Your task to perform on an android device: turn notification dots on Image 0: 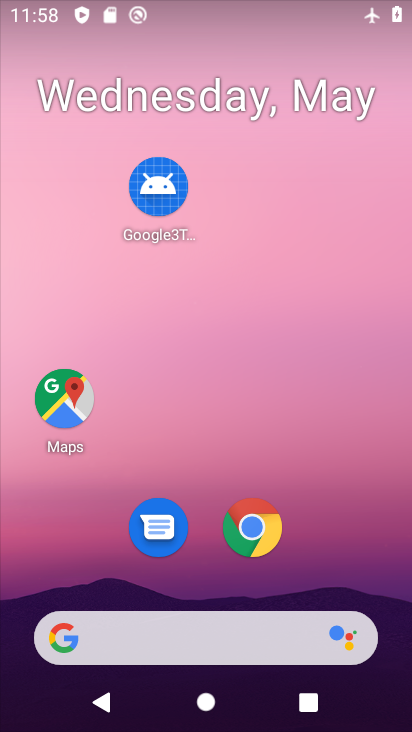
Step 0: drag from (202, 585) to (206, 32)
Your task to perform on an android device: turn notification dots on Image 1: 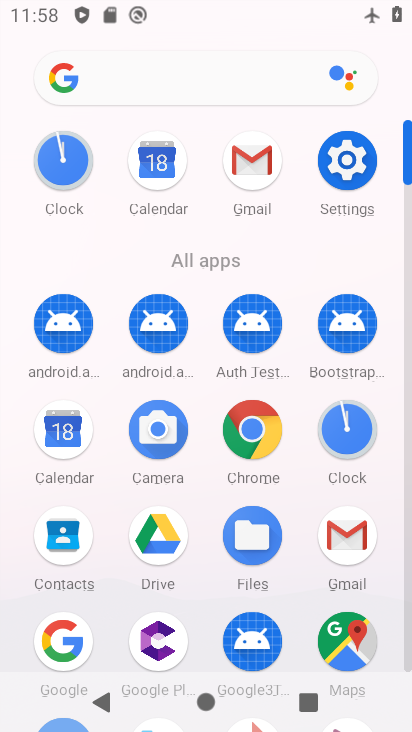
Step 1: click (352, 155)
Your task to perform on an android device: turn notification dots on Image 2: 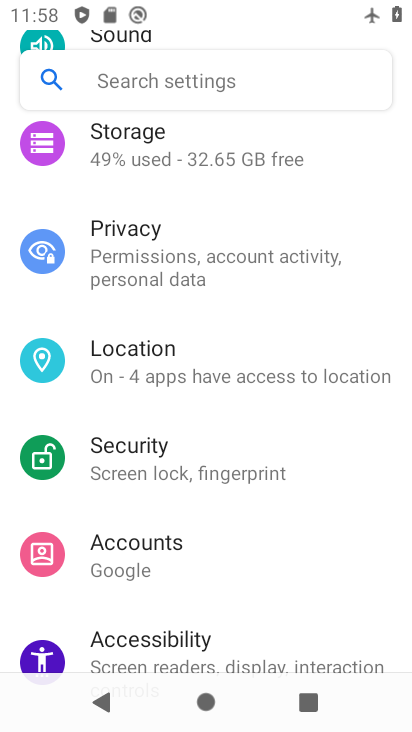
Step 2: drag from (177, 174) to (209, 729)
Your task to perform on an android device: turn notification dots on Image 3: 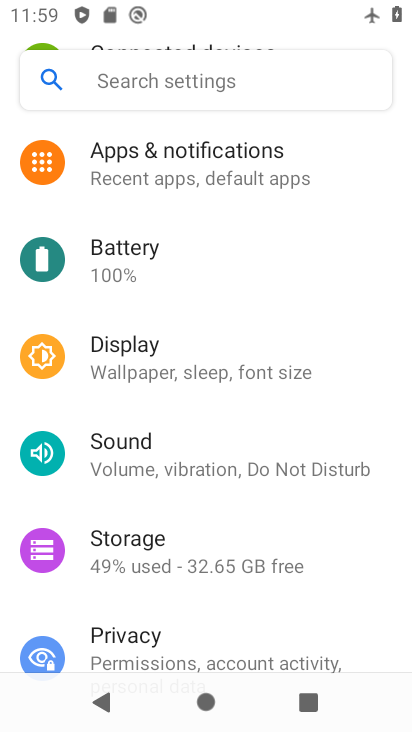
Step 3: click (154, 158)
Your task to perform on an android device: turn notification dots on Image 4: 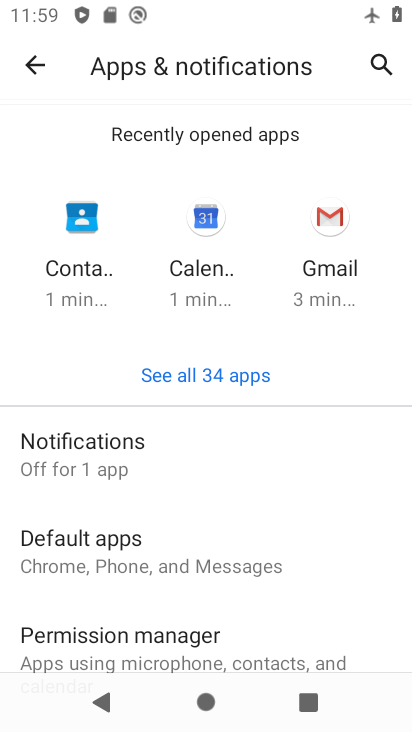
Step 4: click (150, 432)
Your task to perform on an android device: turn notification dots on Image 5: 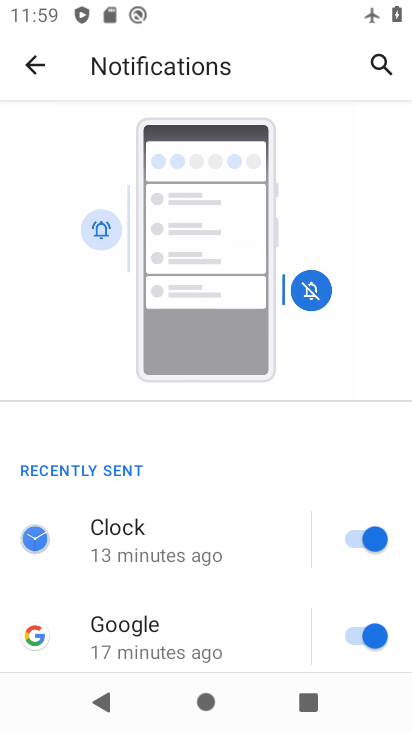
Step 5: drag from (231, 597) to (253, 182)
Your task to perform on an android device: turn notification dots on Image 6: 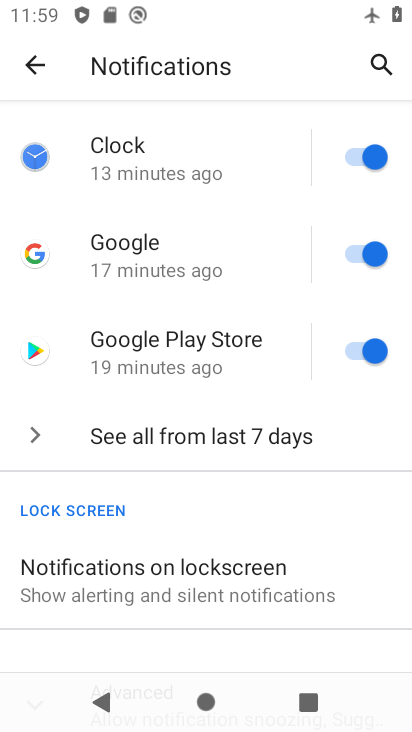
Step 6: drag from (230, 628) to (281, 150)
Your task to perform on an android device: turn notification dots on Image 7: 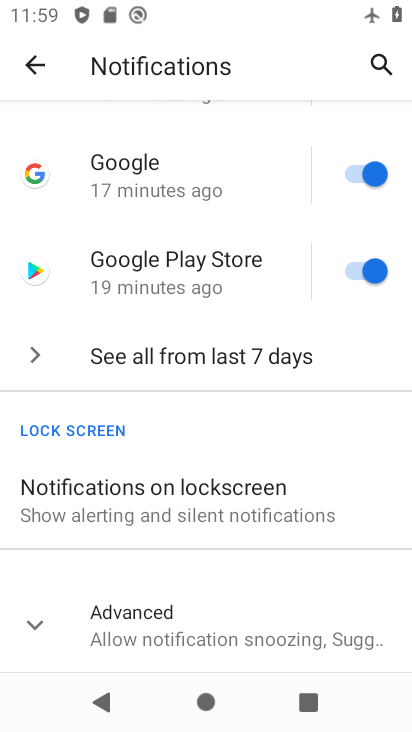
Step 7: click (33, 625)
Your task to perform on an android device: turn notification dots on Image 8: 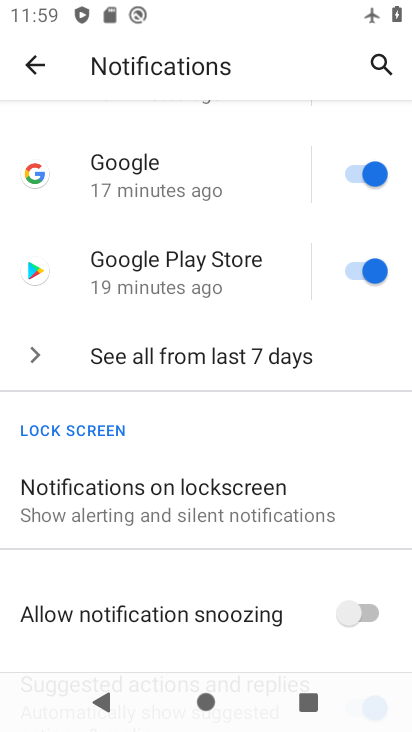
Step 8: task complete